Your task to perform on an android device: see tabs open on other devices in the chrome app Image 0: 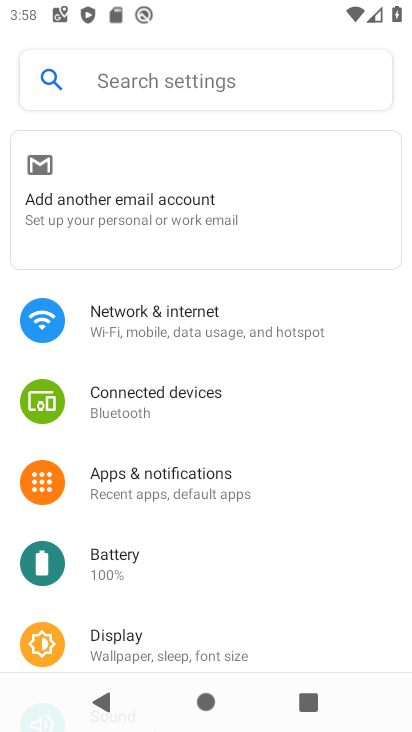
Step 0: press home button
Your task to perform on an android device: see tabs open on other devices in the chrome app Image 1: 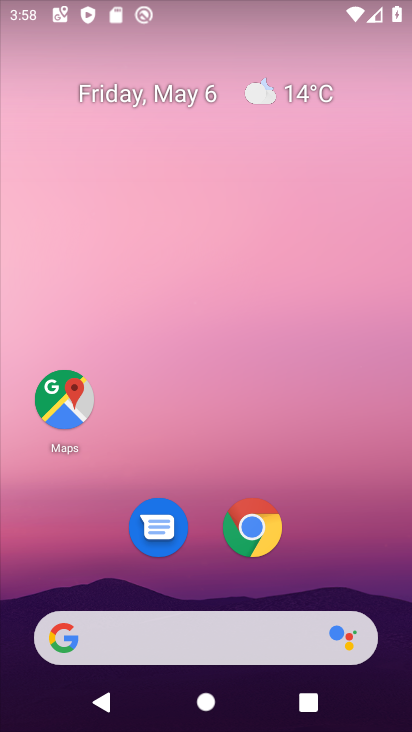
Step 1: click (251, 518)
Your task to perform on an android device: see tabs open on other devices in the chrome app Image 2: 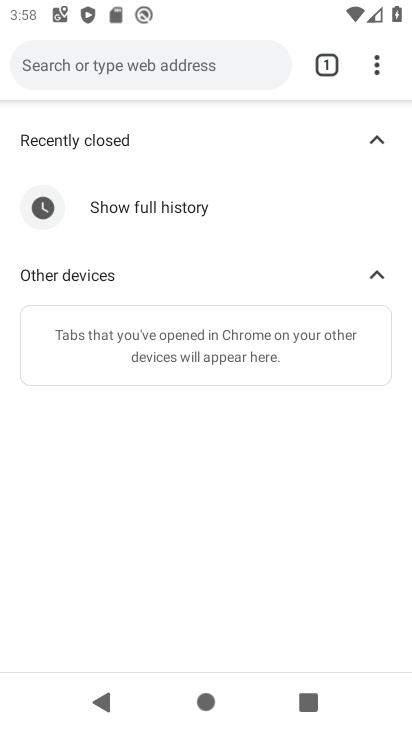
Step 2: click (378, 61)
Your task to perform on an android device: see tabs open on other devices in the chrome app Image 3: 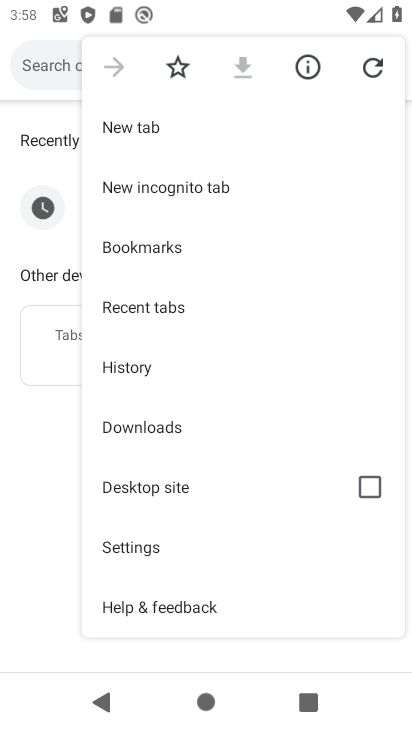
Step 3: click (161, 128)
Your task to perform on an android device: see tabs open on other devices in the chrome app Image 4: 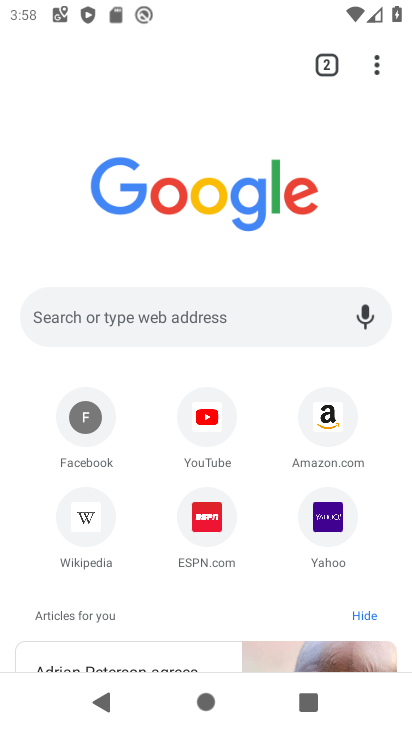
Step 4: click (334, 507)
Your task to perform on an android device: see tabs open on other devices in the chrome app Image 5: 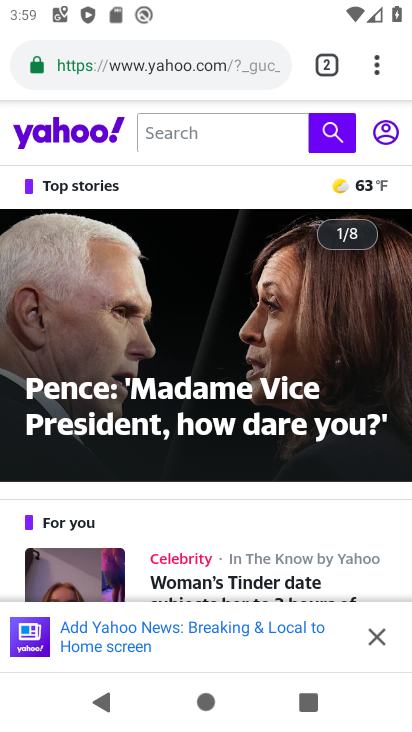
Step 5: task complete